Your task to perform on an android device: What's on my calendar today? Image 0: 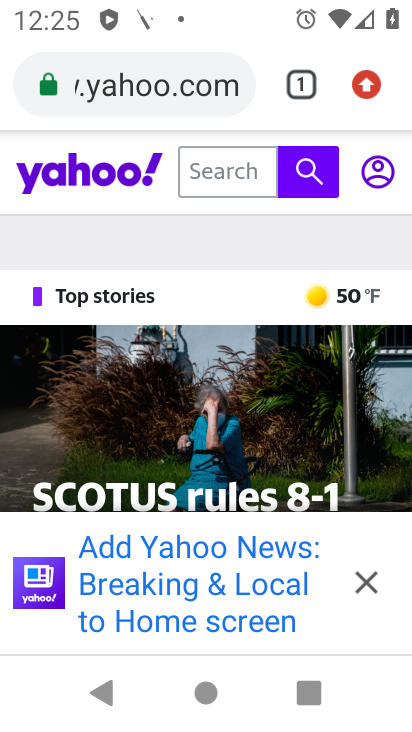
Step 0: press home button
Your task to perform on an android device: What's on my calendar today? Image 1: 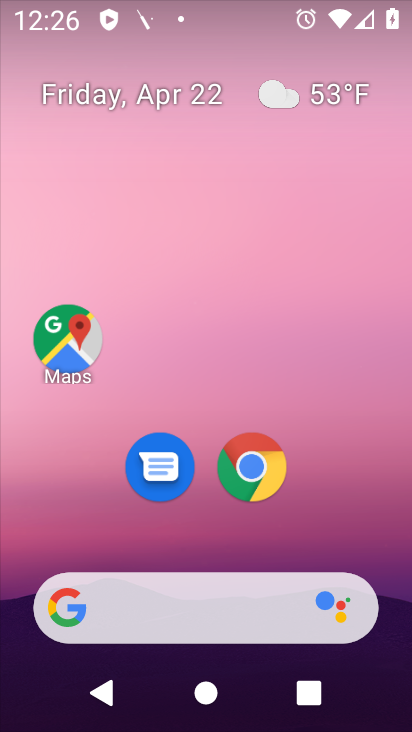
Step 1: drag from (387, 565) to (353, 220)
Your task to perform on an android device: What's on my calendar today? Image 2: 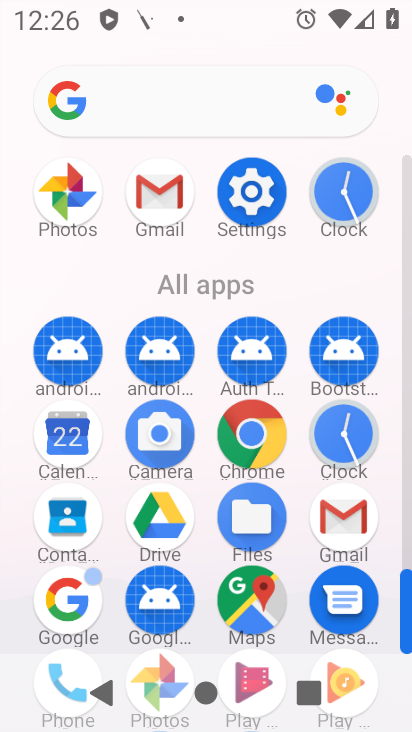
Step 2: drag from (406, 549) to (411, 460)
Your task to perform on an android device: What's on my calendar today? Image 3: 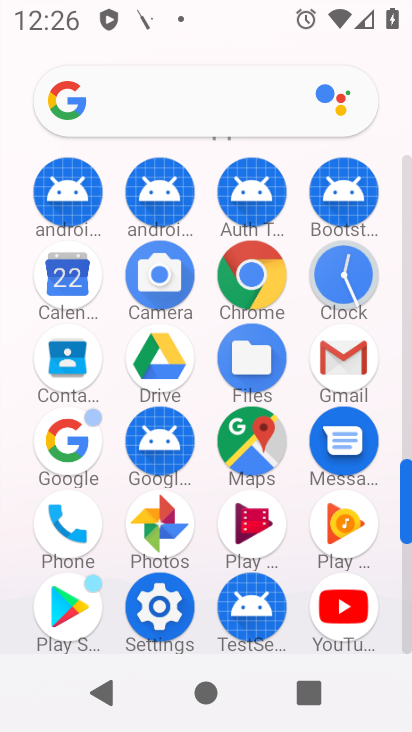
Step 3: click (58, 275)
Your task to perform on an android device: What's on my calendar today? Image 4: 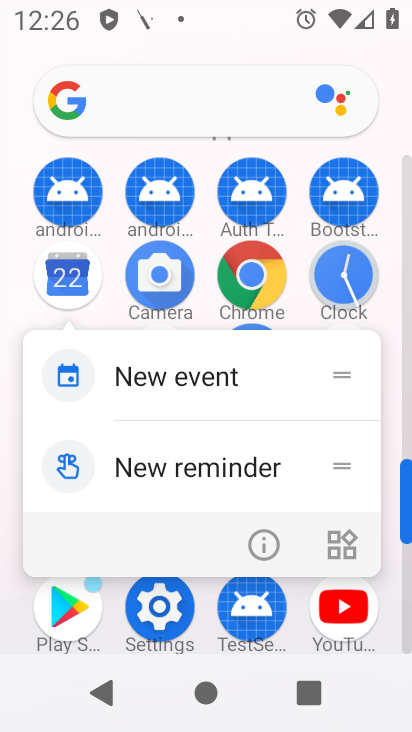
Step 4: click (58, 275)
Your task to perform on an android device: What's on my calendar today? Image 5: 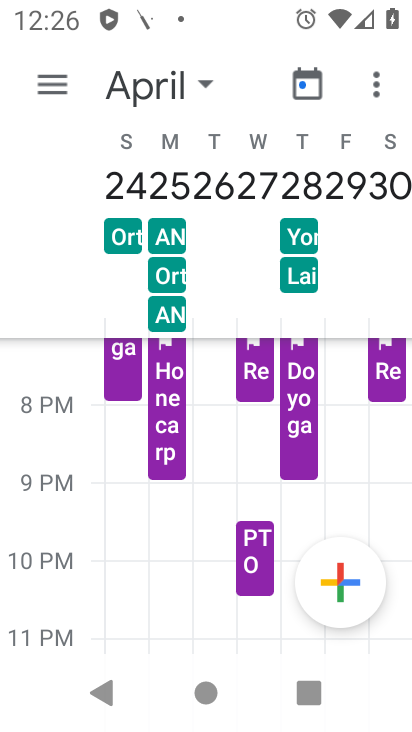
Step 5: click (54, 80)
Your task to perform on an android device: What's on my calendar today? Image 6: 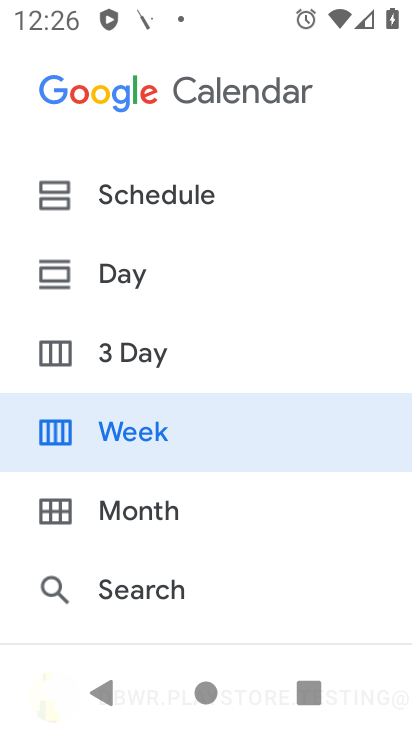
Step 6: click (127, 274)
Your task to perform on an android device: What's on my calendar today? Image 7: 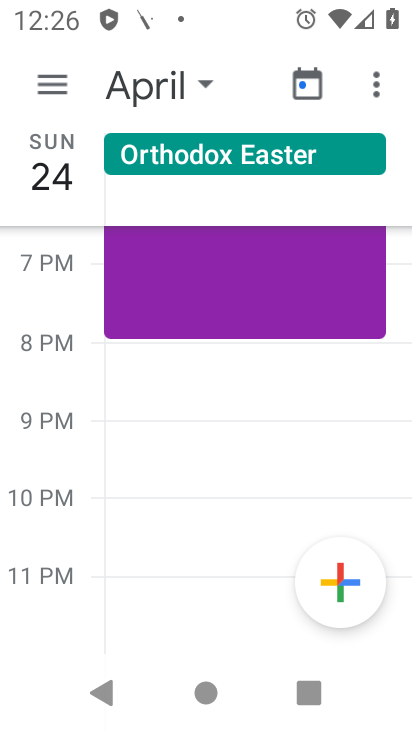
Step 7: task complete